Your task to perform on an android device: turn off translation in the chrome app Image 0: 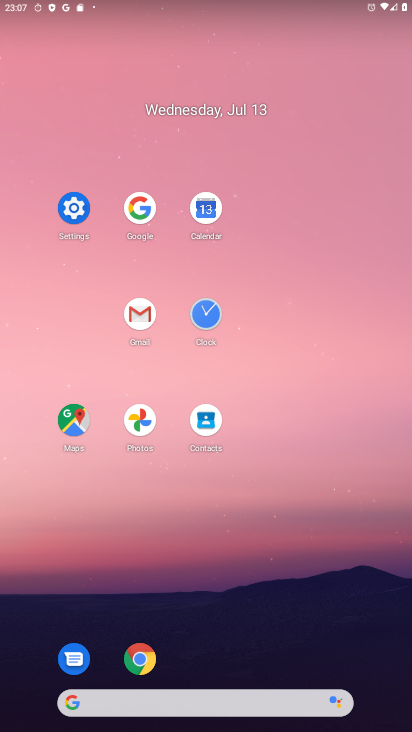
Step 0: click (141, 647)
Your task to perform on an android device: turn off translation in the chrome app Image 1: 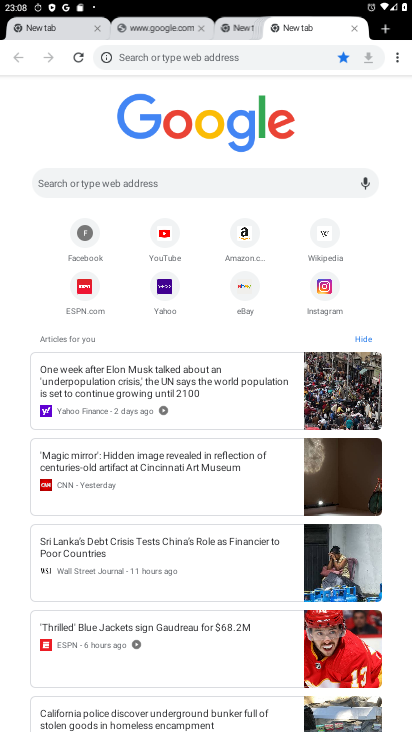
Step 1: click (401, 52)
Your task to perform on an android device: turn off translation in the chrome app Image 2: 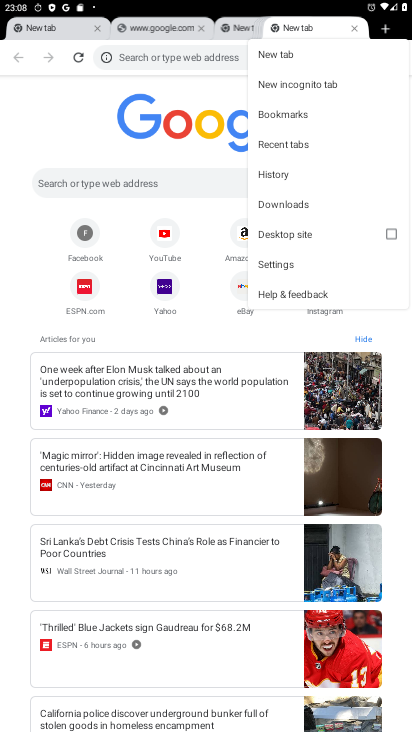
Step 2: click (285, 258)
Your task to perform on an android device: turn off translation in the chrome app Image 3: 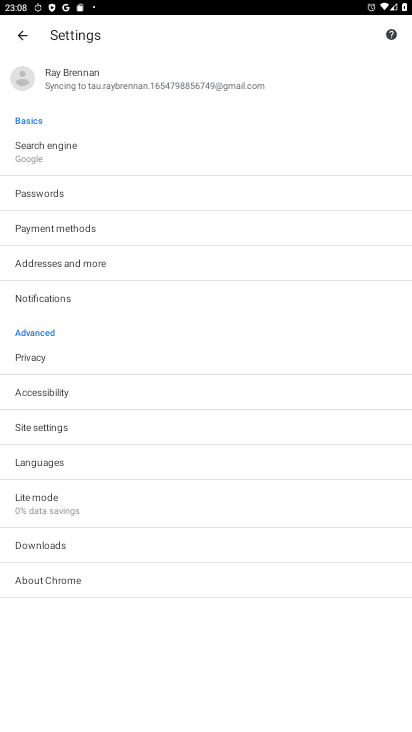
Step 3: click (109, 464)
Your task to perform on an android device: turn off translation in the chrome app Image 4: 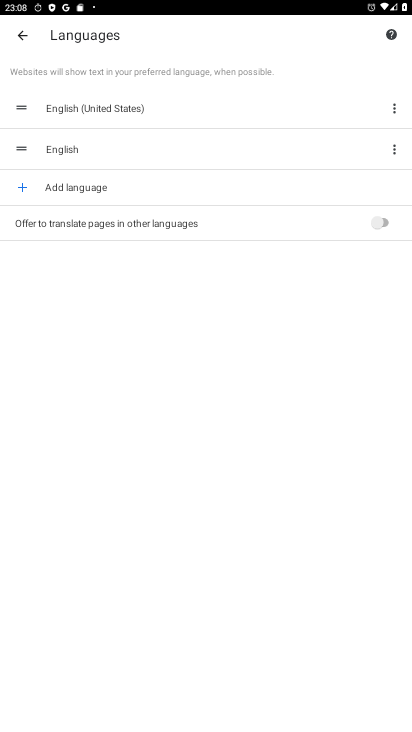
Step 4: task complete